Your task to perform on an android device: move an email to a new category in the gmail app Image 0: 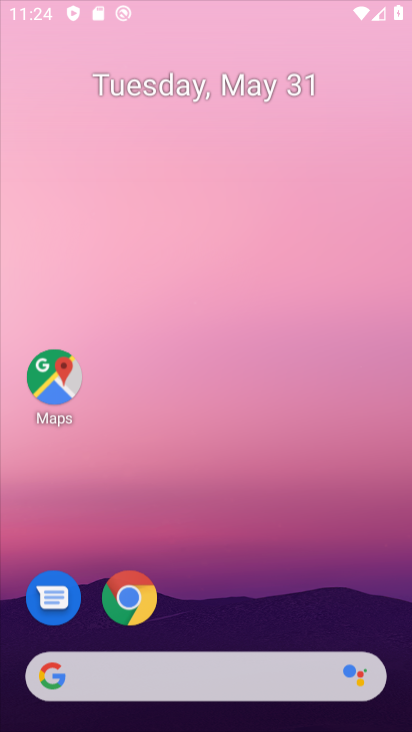
Step 0: drag from (317, 552) to (306, 118)
Your task to perform on an android device: move an email to a new category in the gmail app Image 1: 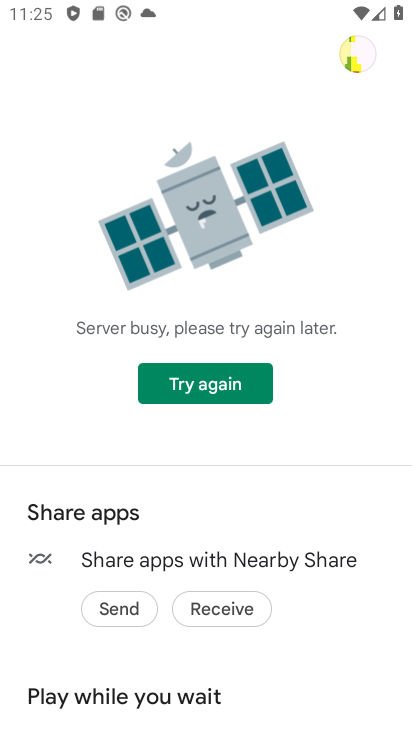
Step 1: press home button
Your task to perform on an android device: move an email to a new category in the gmail app Image 2: 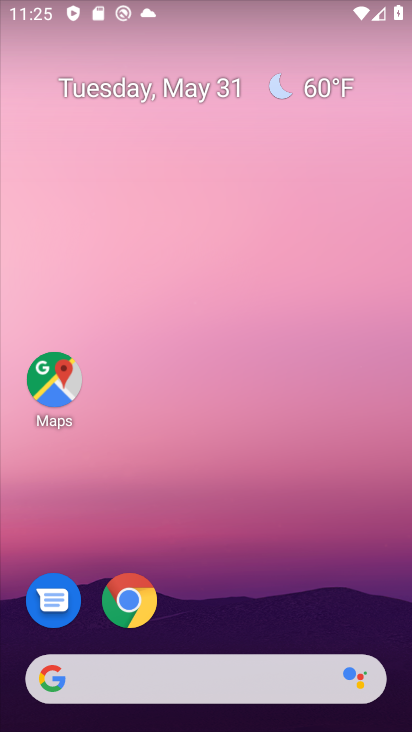
Step 2: drag from (356, 637) to (355, 139)
Your task to perform on an android device: move an email to a new category in the gmail app Image 3: 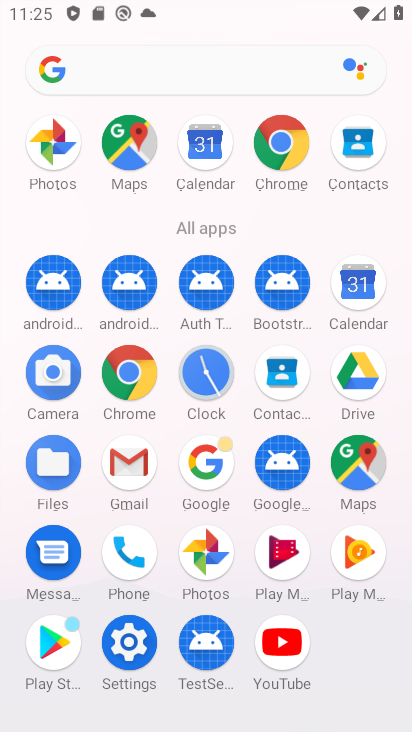
Step 3: click (142, 476)
Your task to perform on an android device: move an email to a new category in the gmail app Image 4: 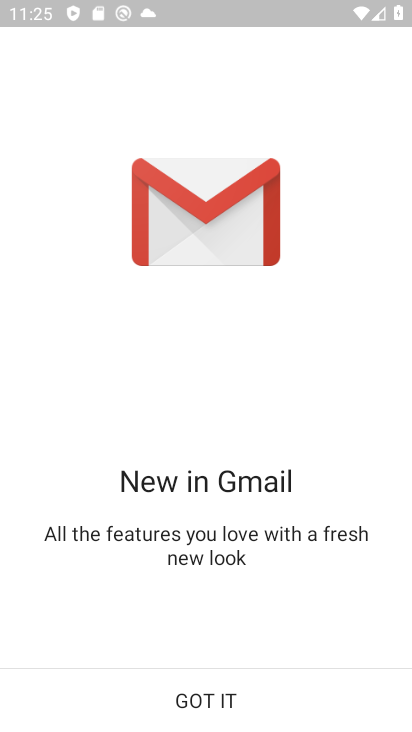
Step 4: click (249, 698)
Your task to perform on an android device: move an email to a new category in the gmail app Image 5: 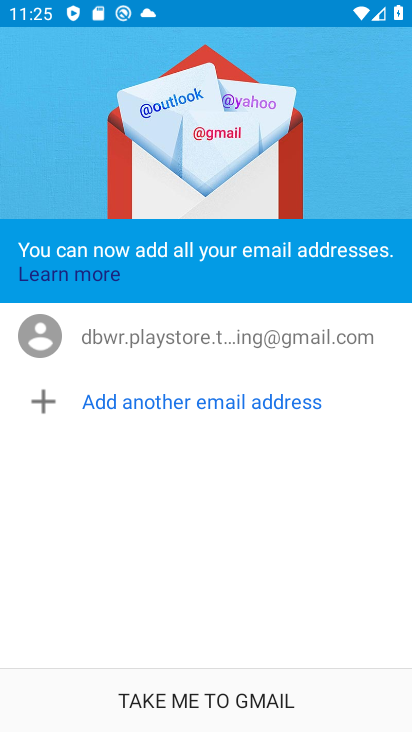
Step 5: click (212, 707)
Your task to perform on an android device: move an email to a new category in the gmail app Image 6: 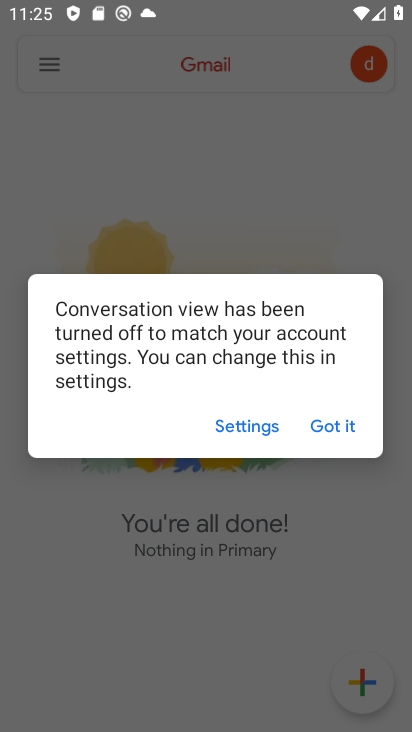
Step 6: click (354, 430)
Your task to perform on an android device: move an email to a new category in the gmail app Image 7: 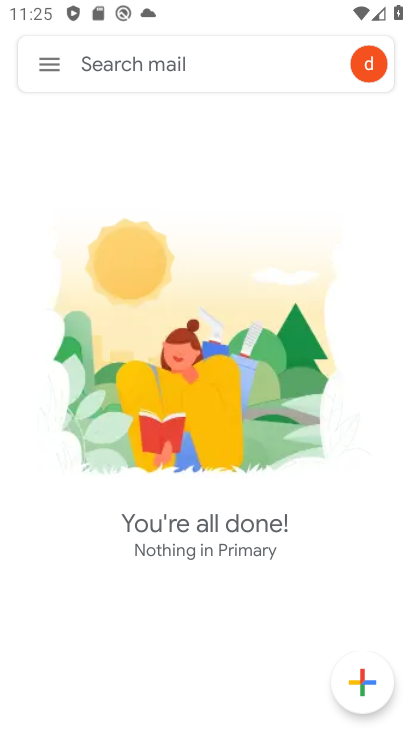
Step 7: click (56, 68)
Your task to perform on an android device: move an email to a new category in the gmail app Image 8: 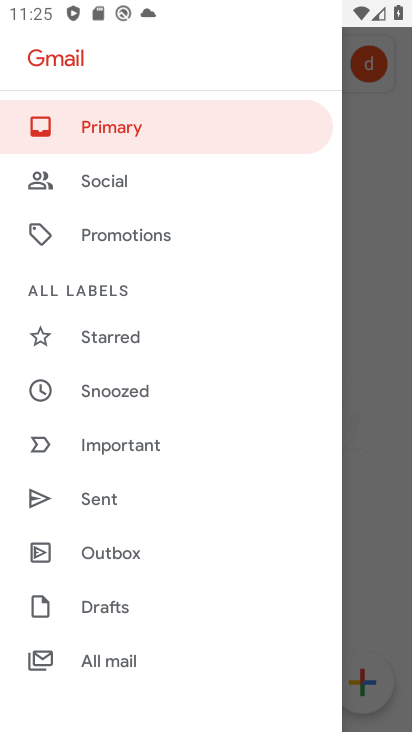
Step 8: drag from (236, 488) to (244, 258)
Your task to perform on an android device: move an email to a new category in the gmail app Image 9: 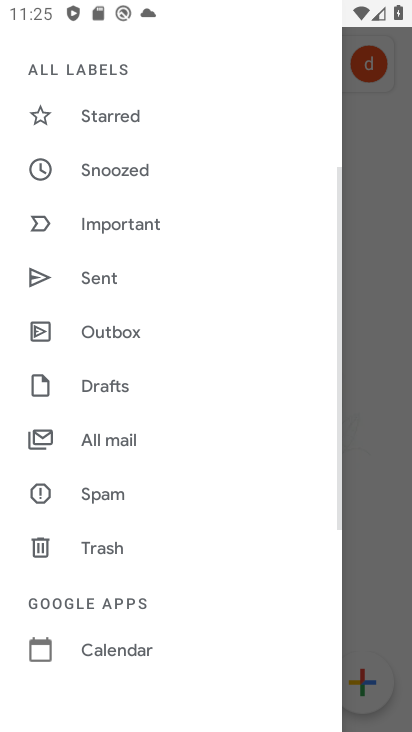
Step 9: drag from (258, 533) to (253, 245)
Your task to perform on an android device: move an email to a new category in the gmail app Image 10: 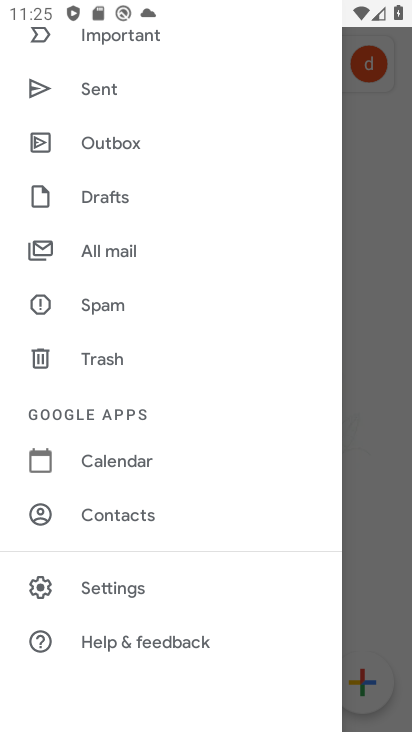
Step 10: drag from (226, 267) to (212, 552)
Your task to perform on an android device: move an email to a new category in the gmail app Image 11: 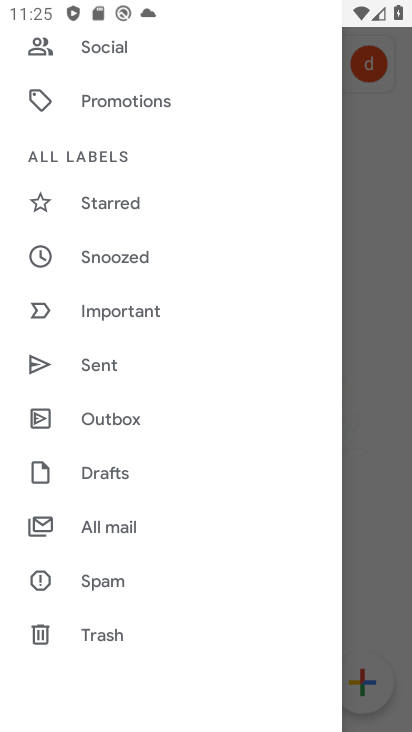
Step 11: drag from (240, 217) to (246, 520)
Your task to perform on an android device: move an email to a new category in the gmail app Image 12: 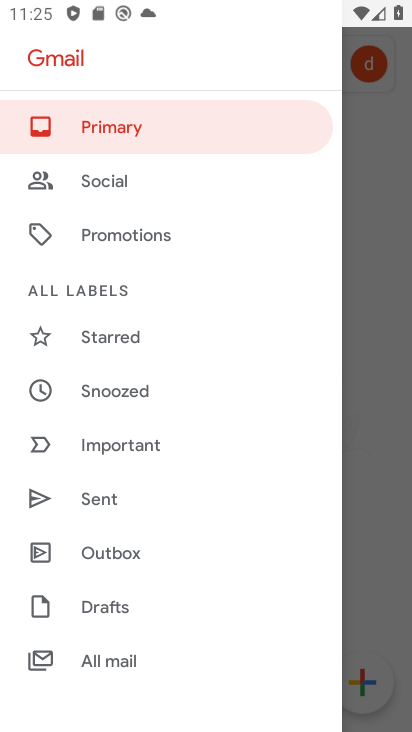
Step 12: click (174, 131)
Your task to perform on an android device: move an email to a new category in the gmail app Image 13: 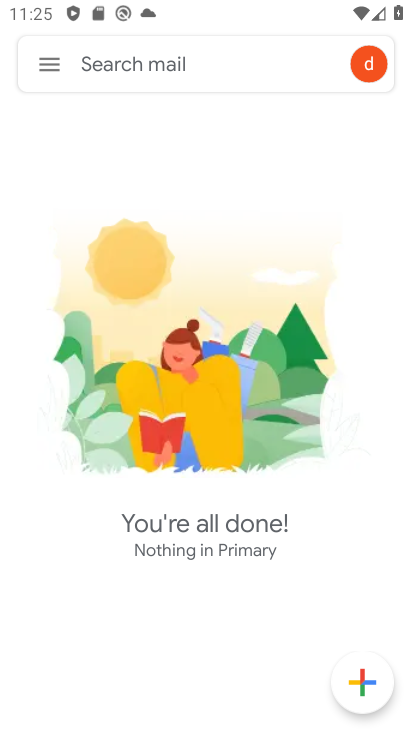
Step 13: task complete